Your task to perform on an android device: turn pop-ups on in chrome Image 0: 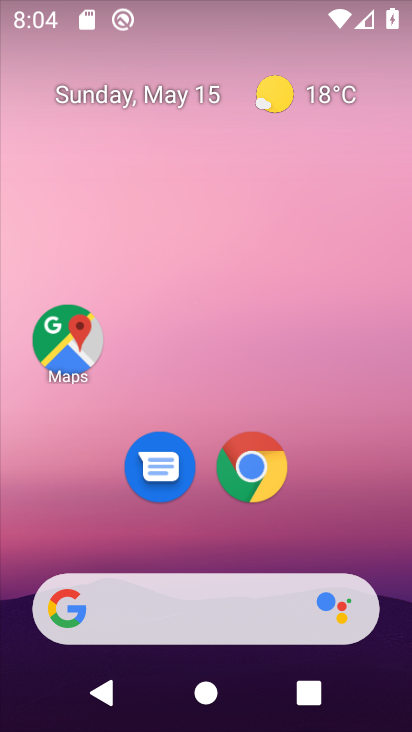
Step 0: click (269, 470)
Your task to perform on an android device: turn pop-ups on in chrome Image 1: 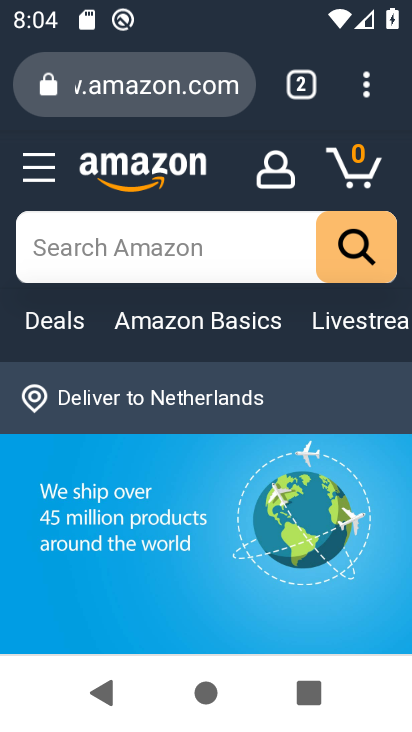
Step 1: click (363, 89)
Your task to perform on an android device: turn pop-ups on in chrome Image 2: 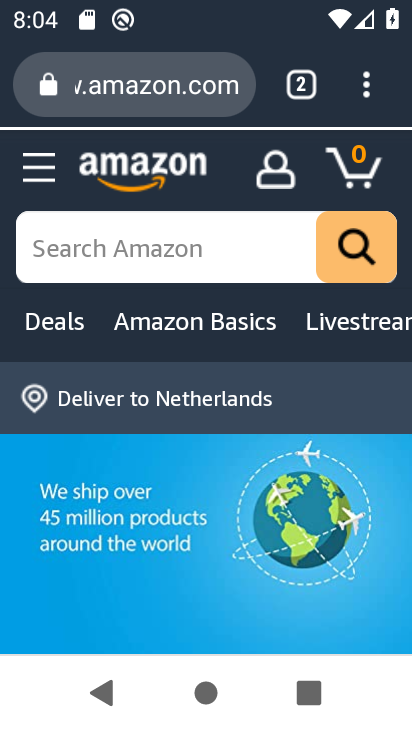
Step 2: click (349, 101)
Your task to perform on an android device: turn pop-ups on in chrome Image 3: 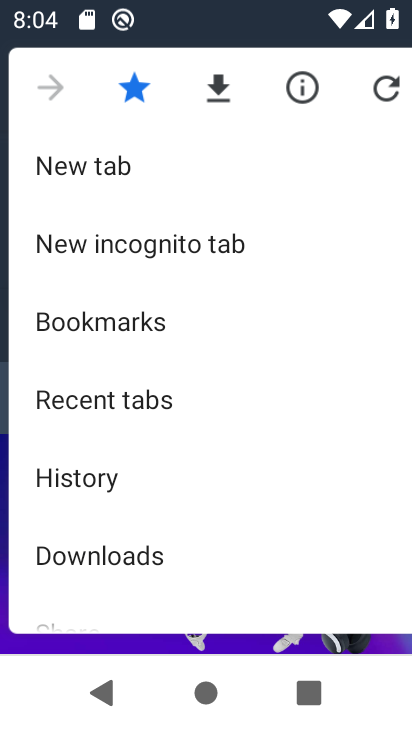
Step 3: drag from (219, 518) to (236, 256)
Your task to perform on an android device: turn pop-ups on in chrome Image 4: 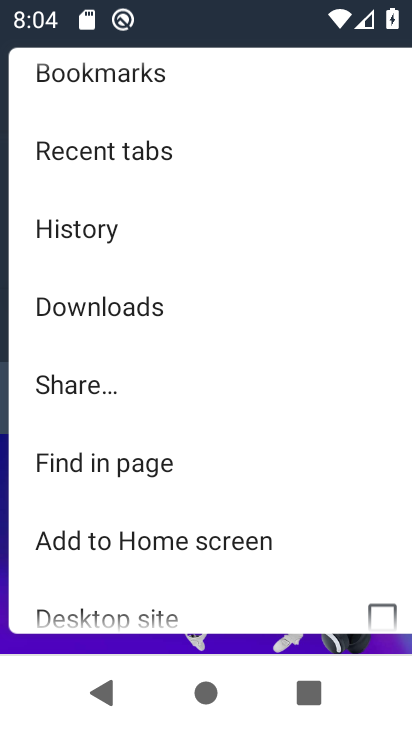
Step 4: drag from (151, 545) to (188, 250)
Your task to perform on an android device: turn pop-ups on in chrome Image 5: 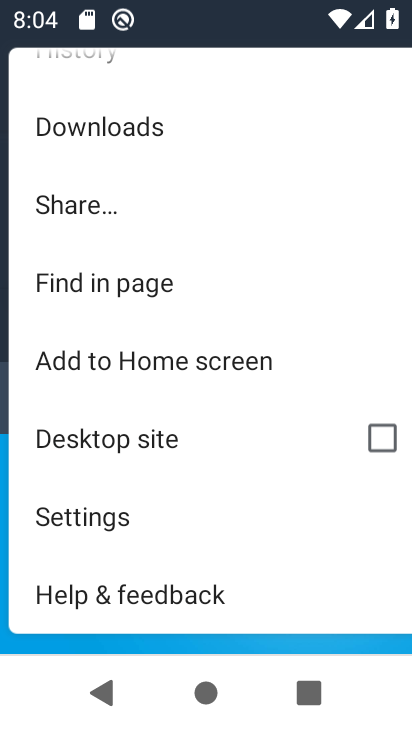
Step 5: click (88, 519)
Your task to perform on an android device: turn pop-ups on in chrome Image 6: 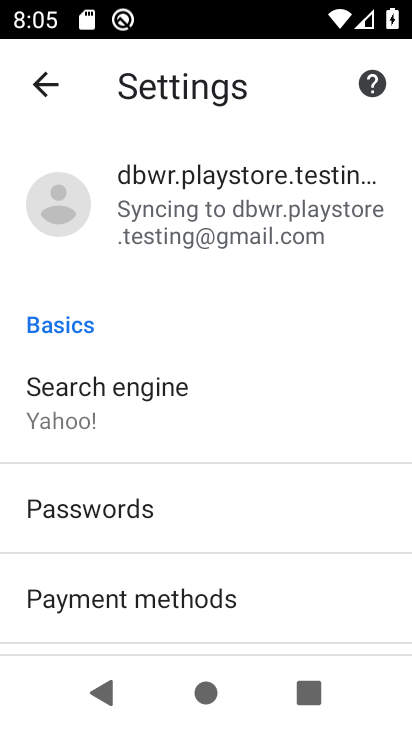
Step 6: drag from (177, 542) to (228, 233)
Your task to perform on an android device: turn pop-ups on in chrome Image 7: 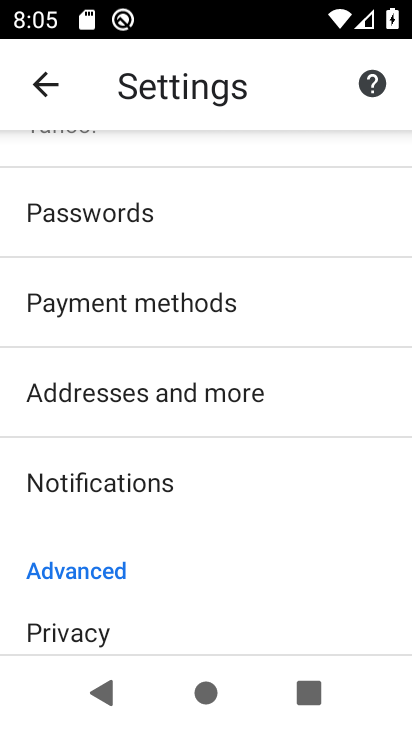
Step 7: drag from (209, 520) to (244, 183)
Your task to perform on an android device: turn pop-ups on in chrome Image 8: 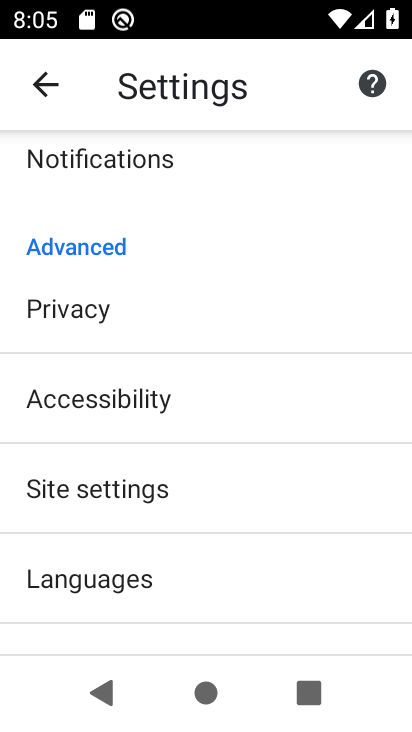
Step 8: click (160, 487)
Your task to perform on an android device: turn pop-ups on in chrome Image 9: 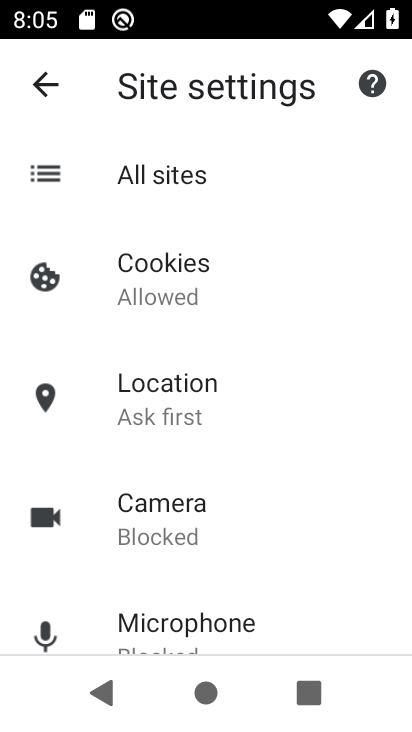
Step 9: drag from (193, 576) to (240, 284)
Your task to perform on an android device: turn pop-ups on in chrome Image 10: 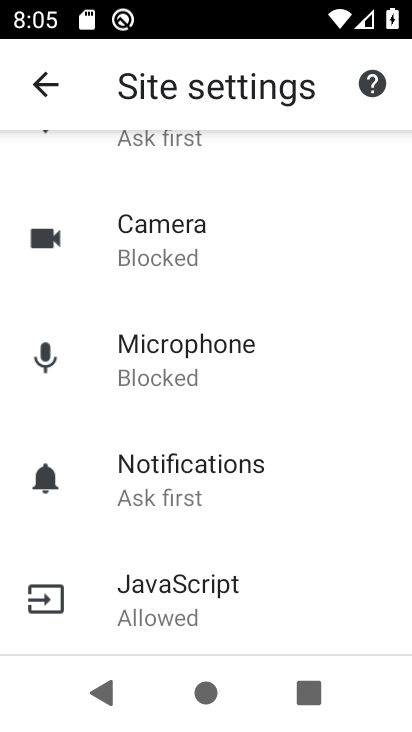
Step 10: drag from (205, 595) to (204, 383)
Your task to perform on an android device: turn pop-ups on in chrome Image 11: 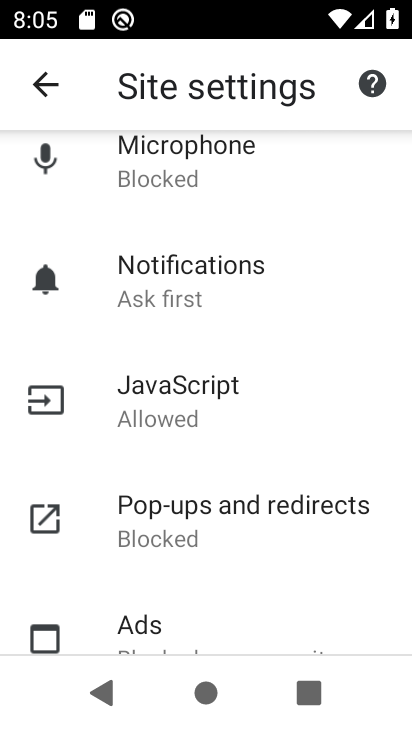
Step 11: click (199, 510)
Your task to perform on an android device: turn pop-ups on in chrome Image 12: 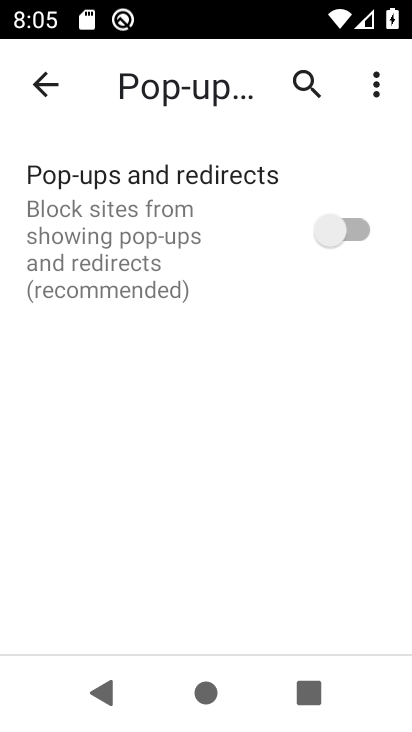
Step 12: click (332, 222)
Your task to perform on an android device: turn pop-ups on in chrome Image 13: 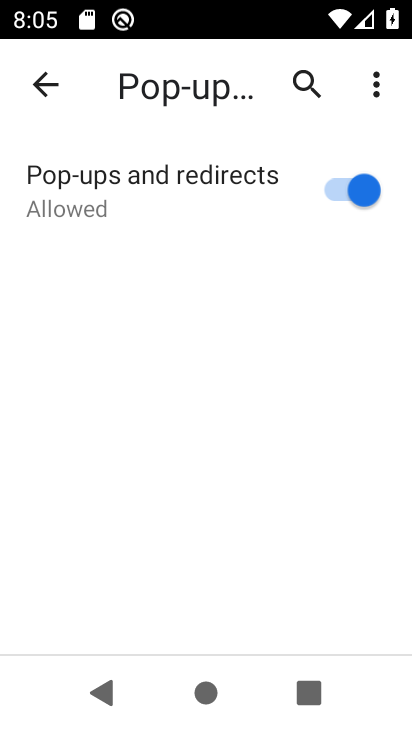
Step 13: task complete